Your task to perform on an android device: Open location settings Image 0: 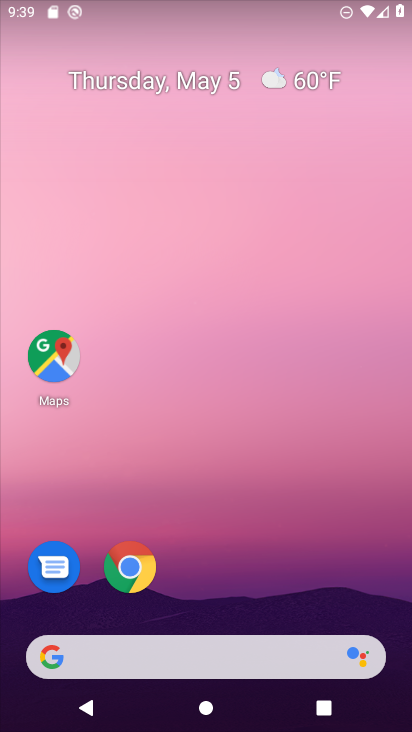
Step 0: drag from (207, 729) to (206, 179)
Your task to perform on an android device: Open location settings Image 1: 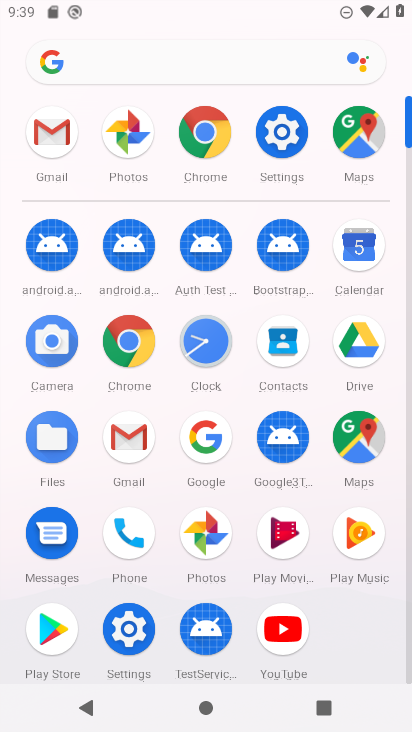
Step 1: click (287, 131)
Your task to perform on an android device: Open location settings Image 2: 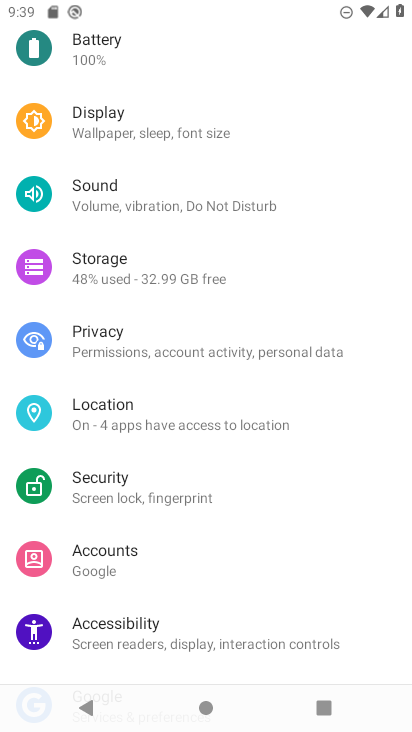
Step 2: click (117, 415)
Your task to perform on an android device: Open location settings Image 3: 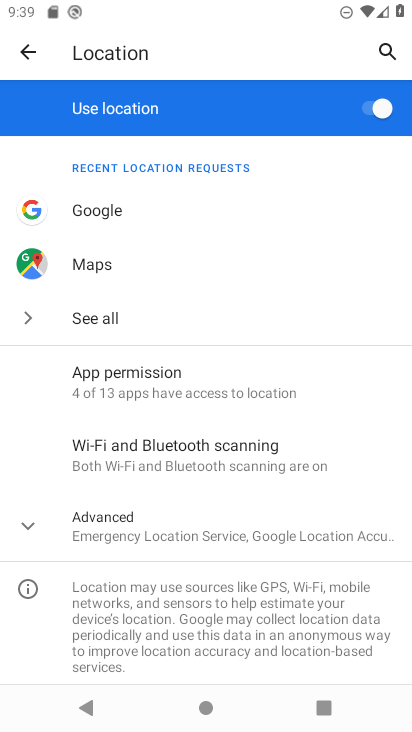
Step 3: task complete